Your task to perform on an android device: Open calendar and show me the fourth week of next month Image 0: 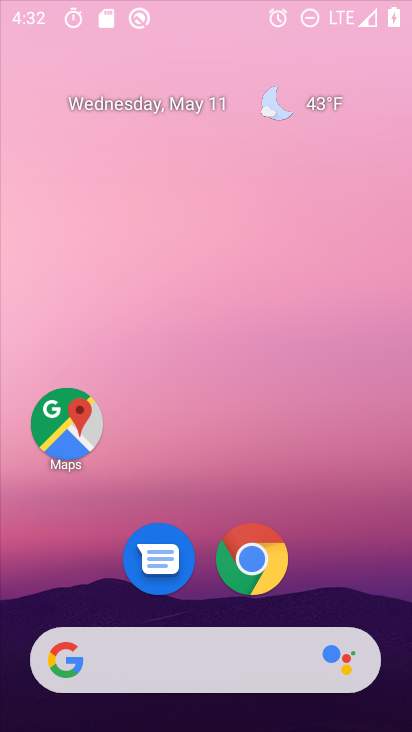
Step 0: click (272, 558)
Your task to perform on an android device: Open calendar and show me the fourth week of next month Image 1: 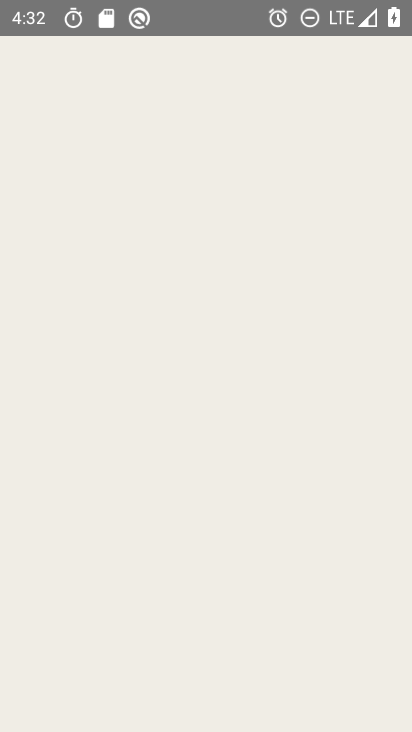
Step 1: press home button
Your task to perform on an android device: Open calendar and show me the fourth week of next month Image 2: 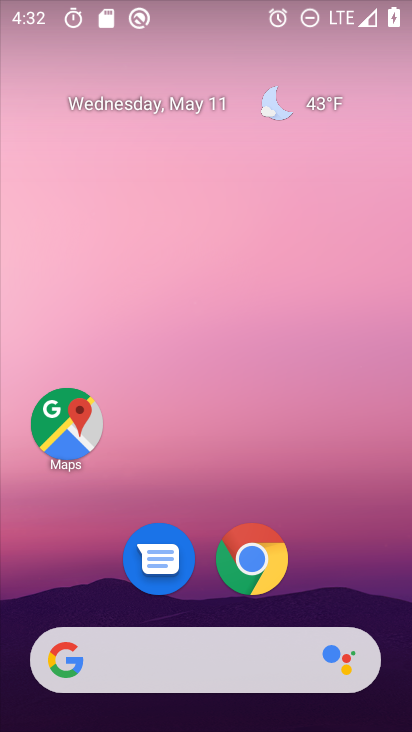
Step 2: click (146, 99)
Your task to perform on an android device: Open calendar and show me the fourth week of next month Image 3: 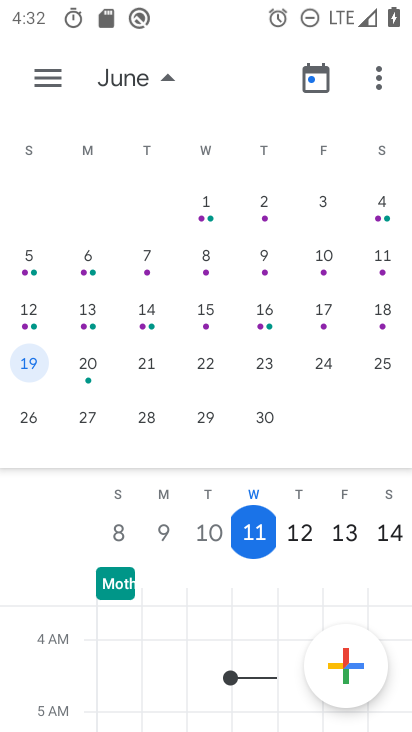
Step 3: task complete